Your task to perform on an android device: uninstall "Calculator" Image 0: 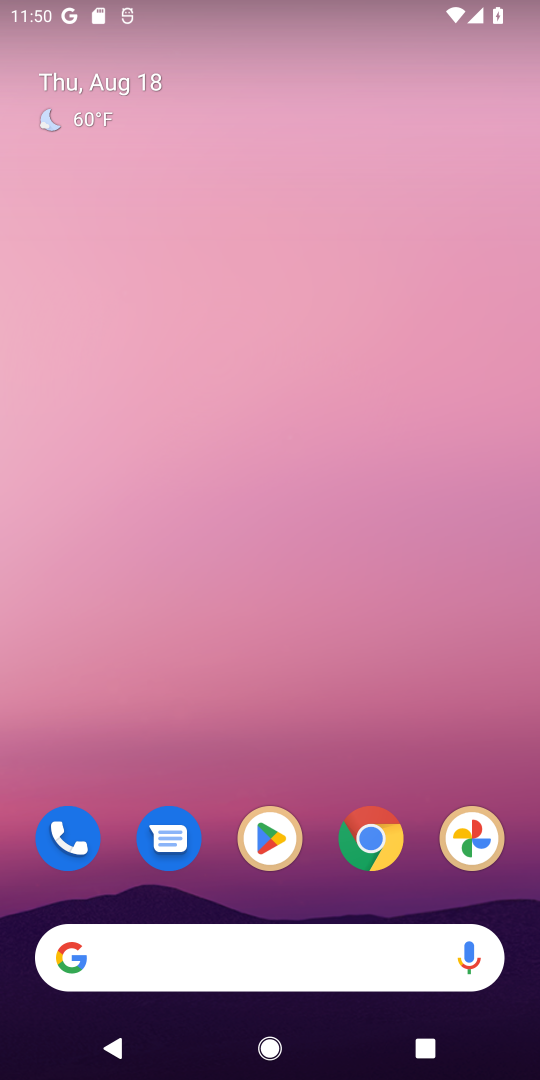
Step 0: click (270, 837)
Your task to perform on an android device: uninstall "Calculator" Image 1: 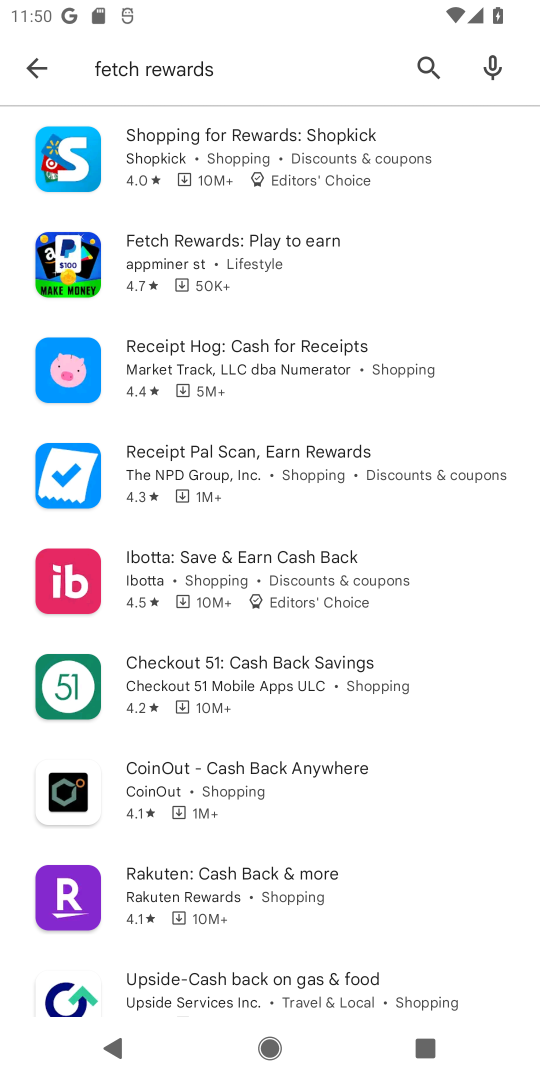
Step 1: click (409, 62)
Your task to perform on an android device: uninstall "Calculator" Image 2: 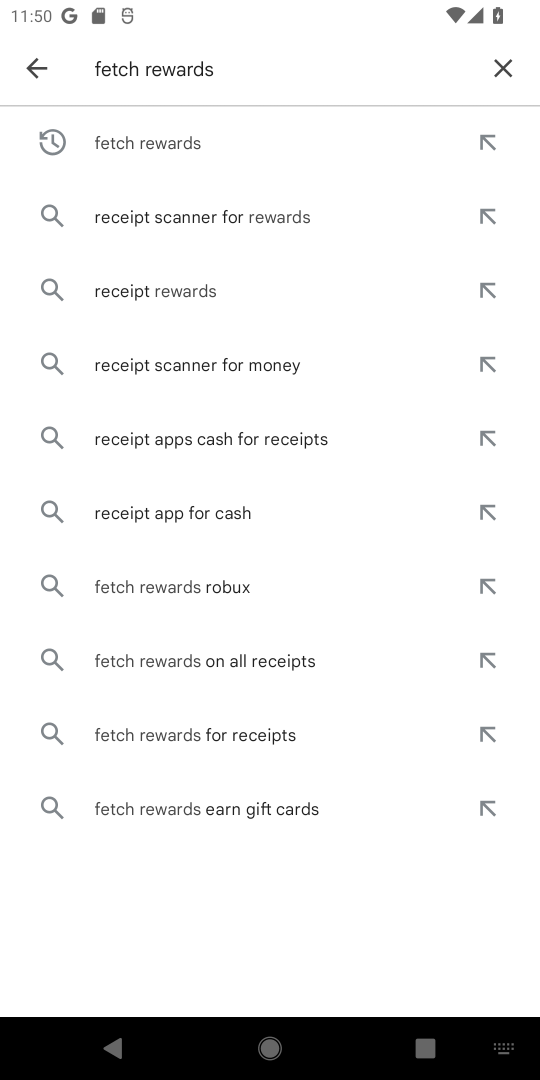
Step 2: click (489, 54)
Your task to perform on an android device: uninstall "Calculator" Image 3: 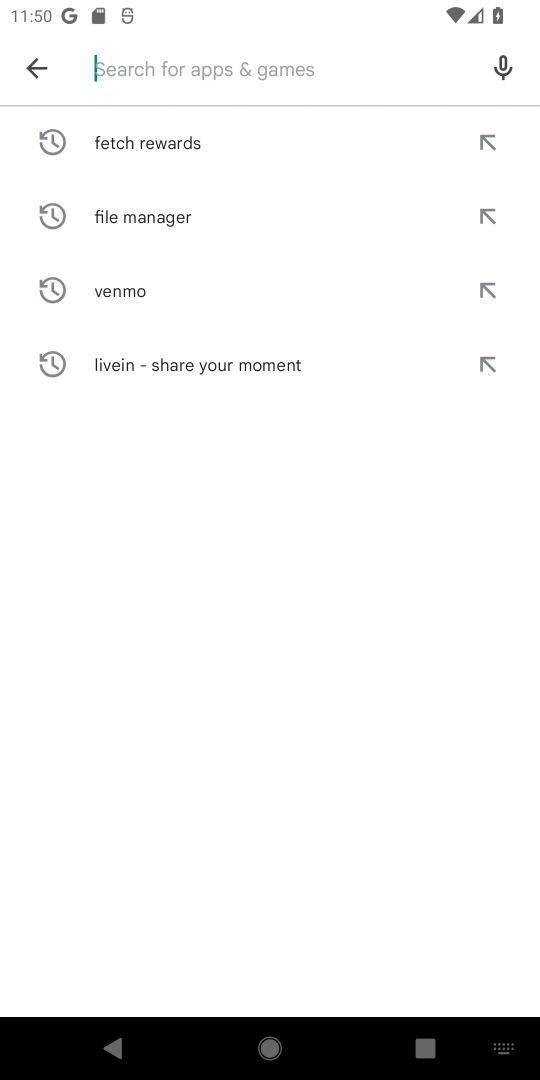
Step 3: type "Calculator"
Your task to perform on an android device: uninstall "Calculator" Image 4: 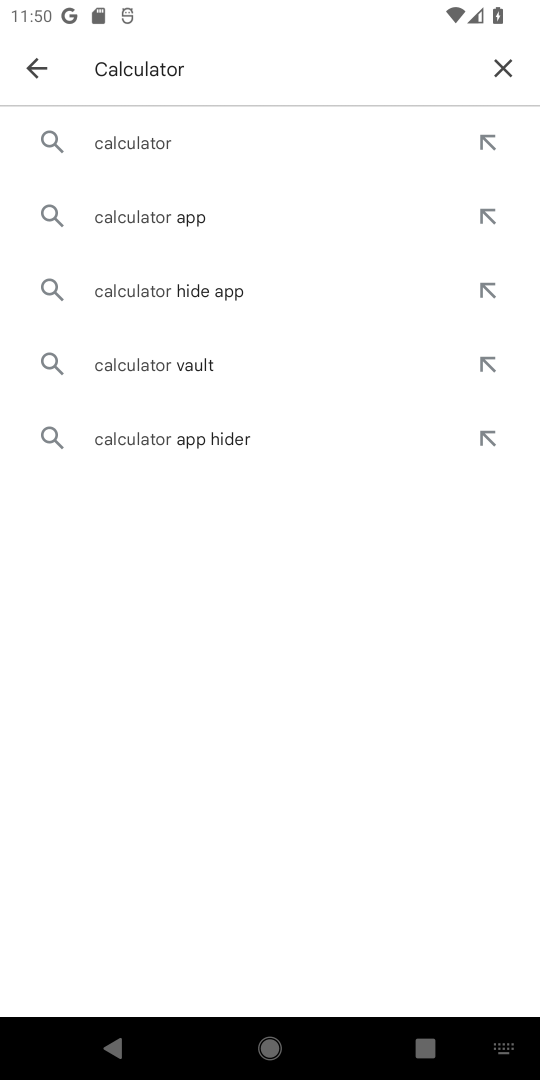
Step 4: click (194, 156)
Your task to perform on an android device: uninstall "Calculator" Image 5: 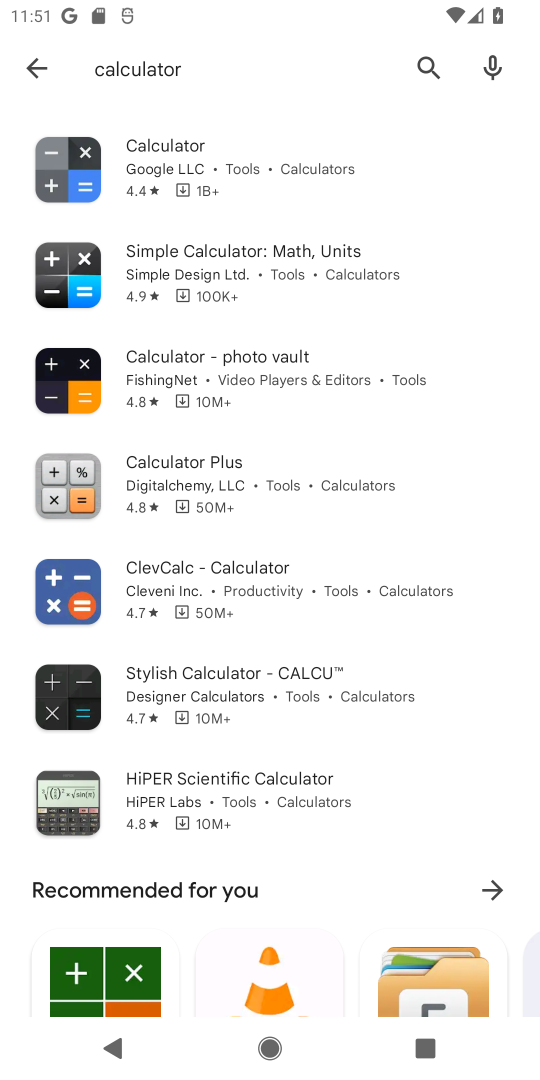
Step 5: click (194, 156)
Your task to perform on an android device: uninstall "Calculator" Image 6: 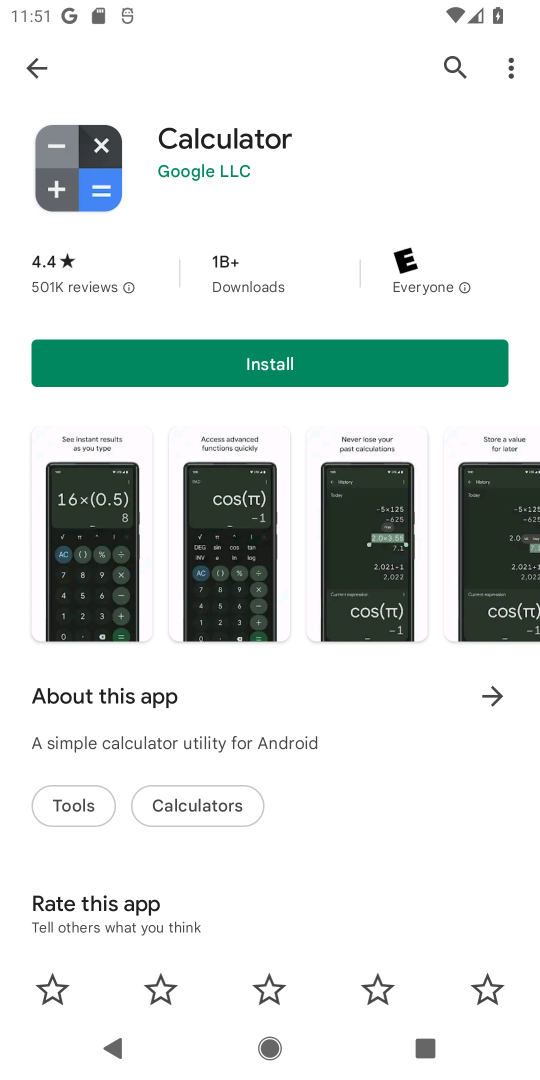
Step 6: task complete